Your task to perform on an android device: toggle airplane mode Image 0: 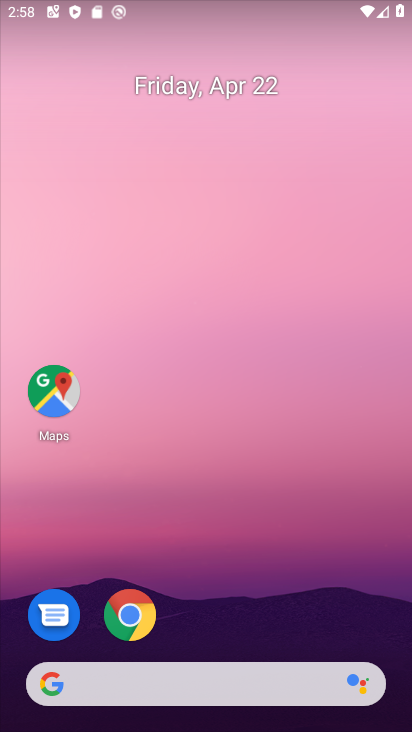
Step 0: drag from (237, 596) to (243, 82)
Your task to perform on an android device: toggle airplane mode Image 1: 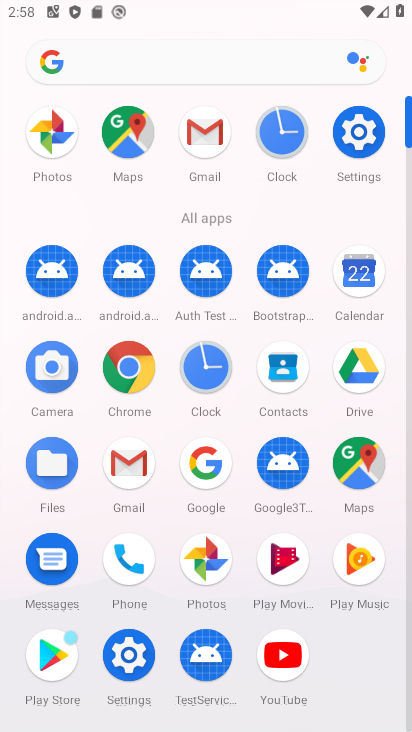
Step 1: click (354, 142)
Your task to perform on an android device: toggle airplane mode Image 2: 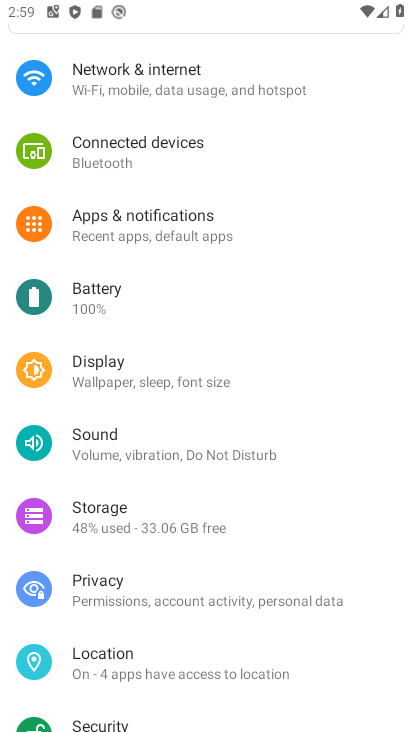
Step 2: click (154, 89)
Your task to perform on an android device: toggle airplane mode Image 3: 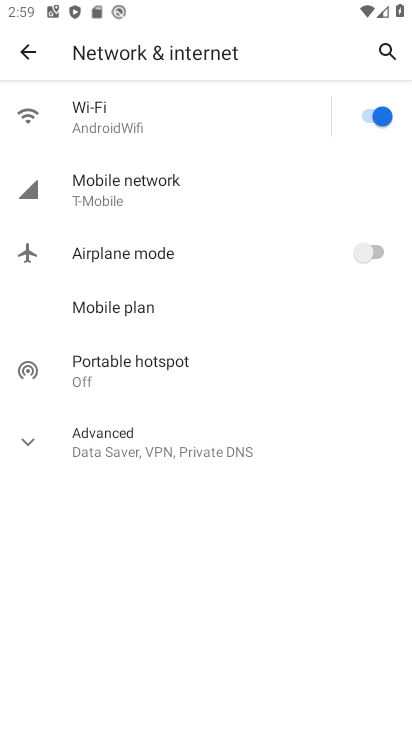
Step 3: click (372, 251)
Your task to perform on an android device: toggle airplane mode Image 4: 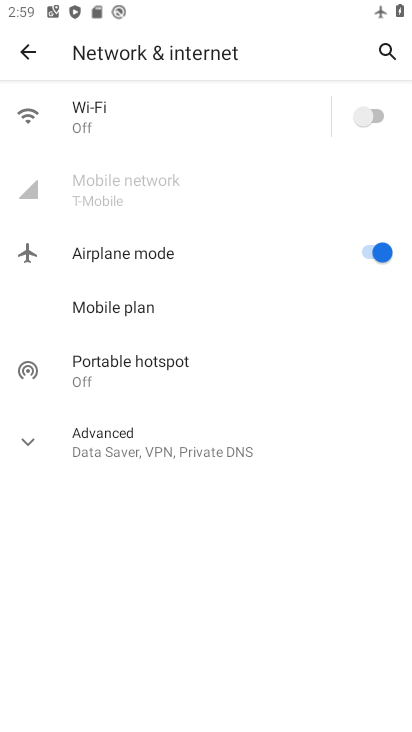
Step 4: task complete